Your task to perform on an android device: Open privacy settings Image 0: 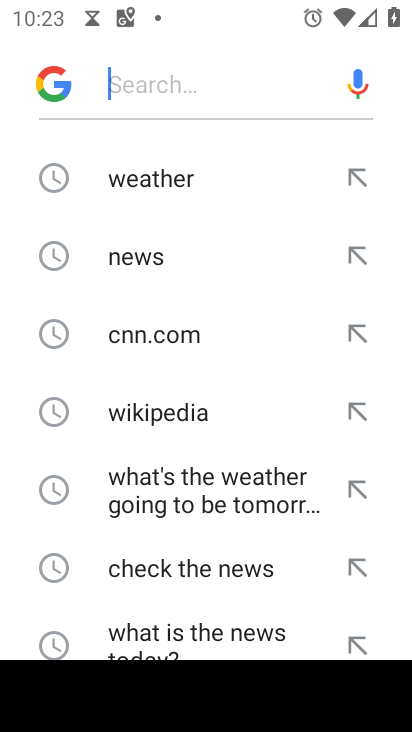
Step 0: press back button
Your task to perform on an android device: Open privacy settings Image 1: 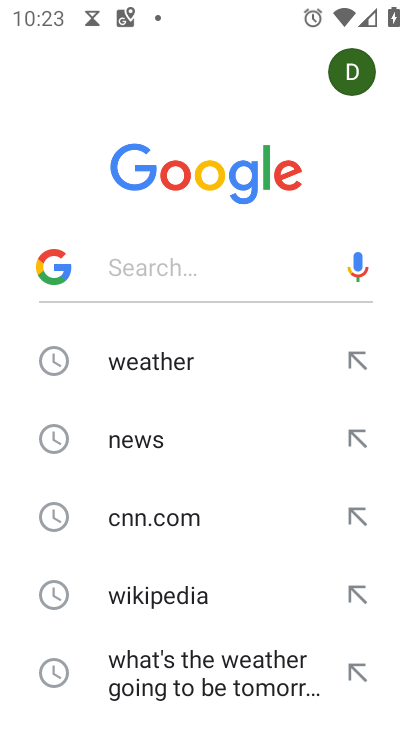
Step 1: press home button
Your task to perform on an android device: Open privacy settings Image 2: 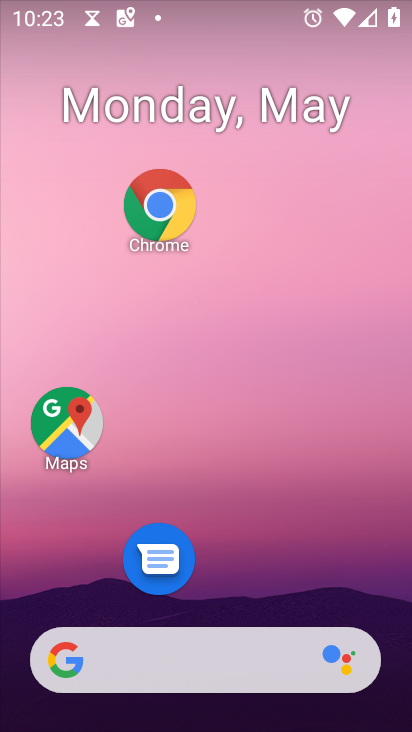
Step 2: drag from (253, 583) to (189, 167)
Your task to perform on an android device: Open privacy settings Image 3: 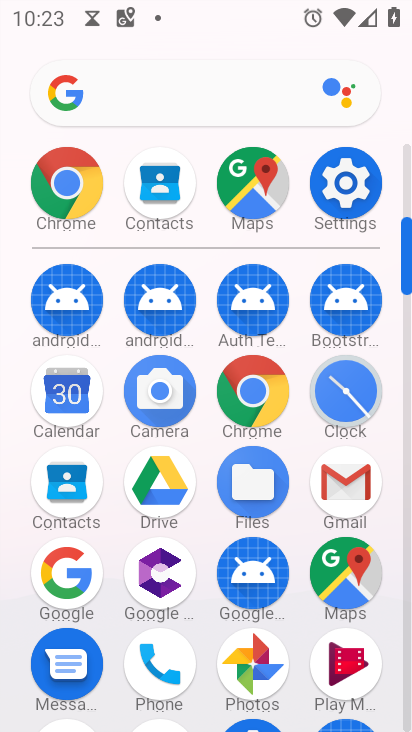
Step 3: click (357, 196)
Your task to perform on an android device: Open privacy settings Image 4: 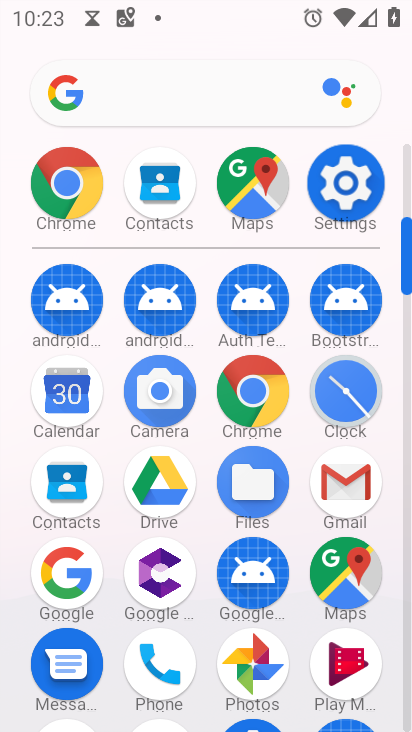
Step 4: click (355, 187)
Your task to perform on an android device: Open privacy settings Image 5: 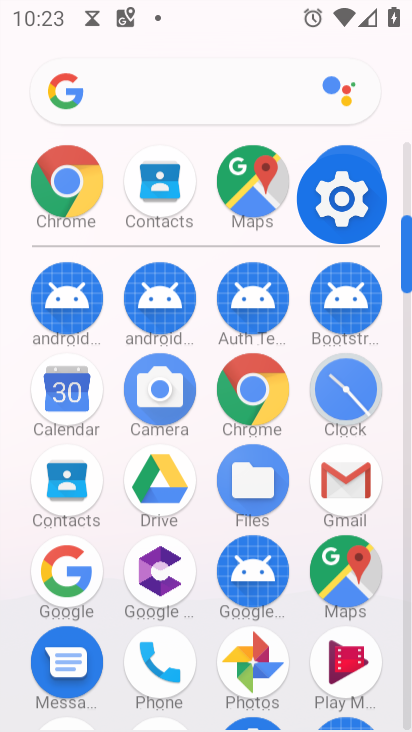
Step 5: click (355, 187)
Your task to perform on an android device: Open privacy settings Image 6: 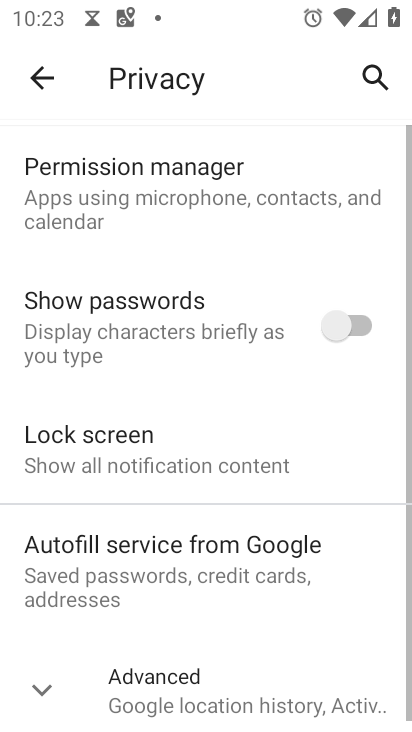
Step 6: drag from (164, 262) to (220, 551)
Your task to perform on an android device: Open privacy settings Image 7: 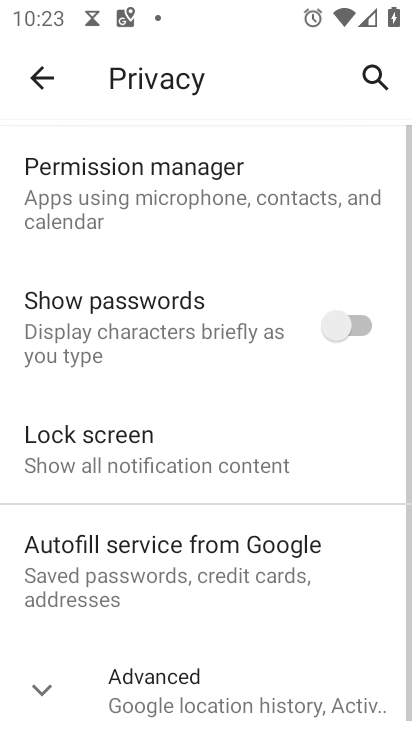
Step 7: click (38, 86)
Your task to perform on an android device: Open privacy settings Image 8: 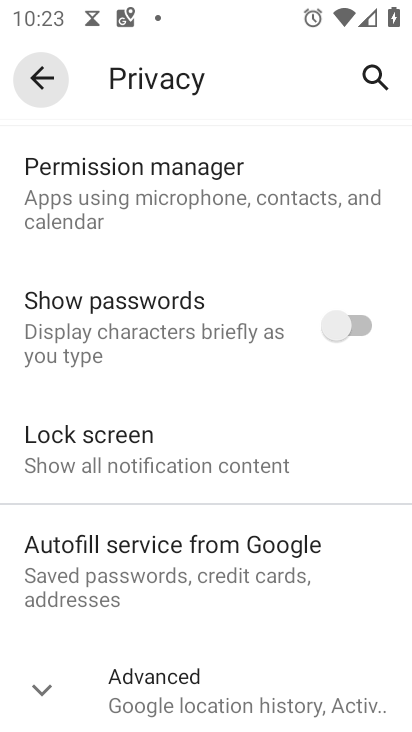
Step 8: click (39, 85)
Your task to perform on an android device: Open privacy settings Image 9: 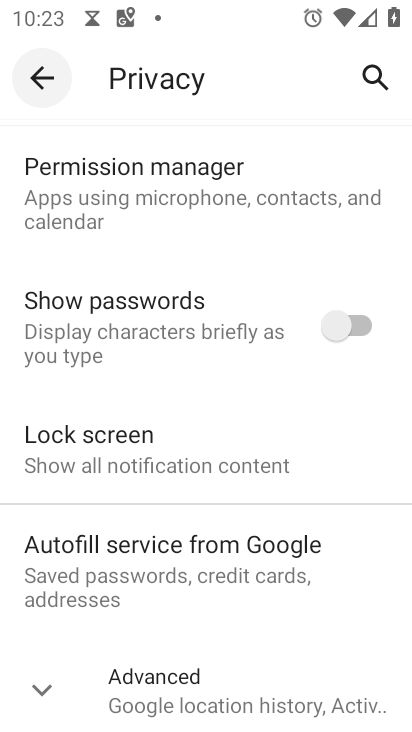
Step 9: click (39, 85)
Your task to perform on an android device: Open privacy settings Image 10: 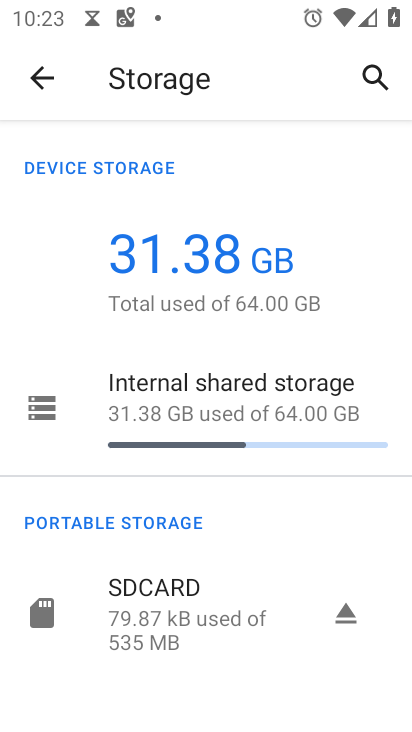
Step 10: drag from (179, 197) to (236, 579)
Your task to perform on an android device: Open privacy settings Image 11: 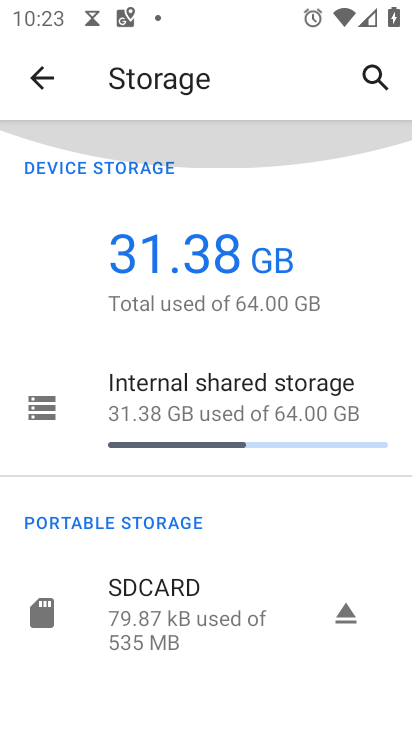
Step 11: drag from (197, 272) to (211, 541)
Your task to perform on an android device: Open privacy settings Image 12: 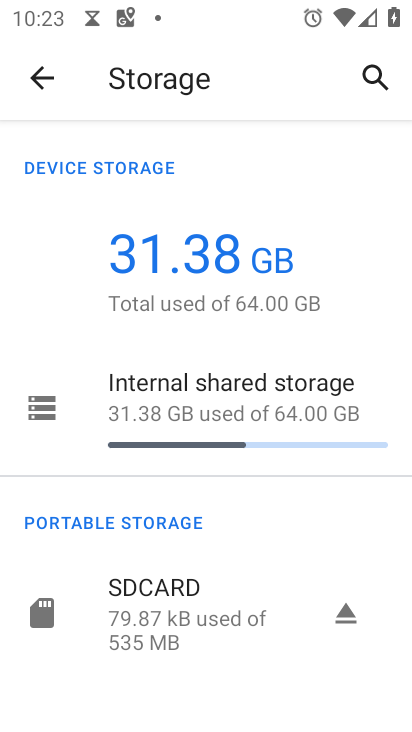
Step 12: click (38, 77)
Your task to perform on an android device: Open privacy settings Image 13: 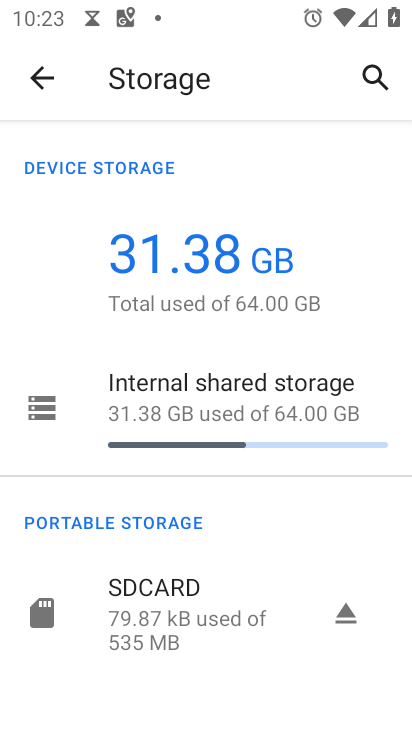
Step 13: click (36, 78)
Your task to perform on an android device: Open privacy settings Image 14: 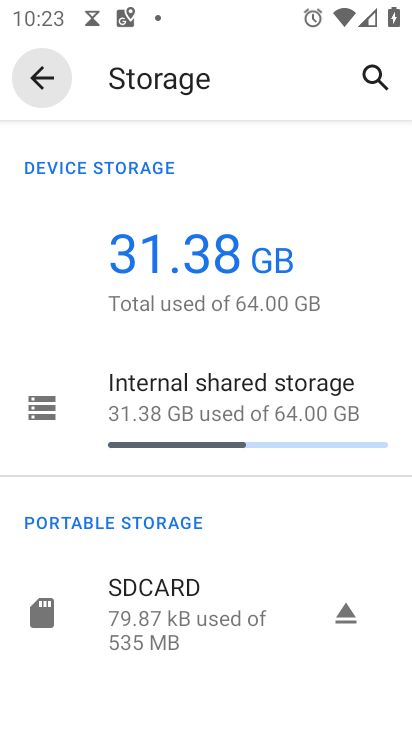
Step 14: click (36, 78)
Your task to perform on an android device: Open privacy settings Image 15: 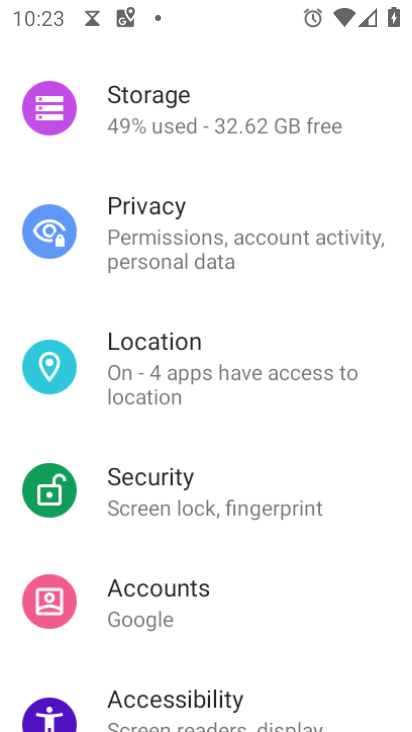
Step 15: click (38, 80)
Your task to perform on an android device: Open privacy settings Image 16: 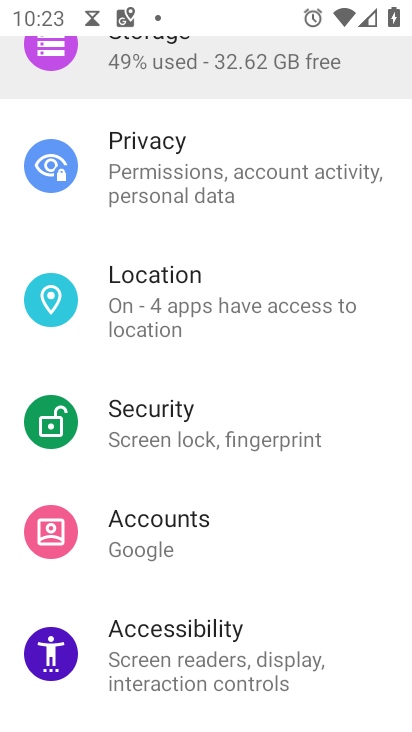
Step 16: click (39, 81)
Your task to perform on an android device: Open privacy settings Image 17: 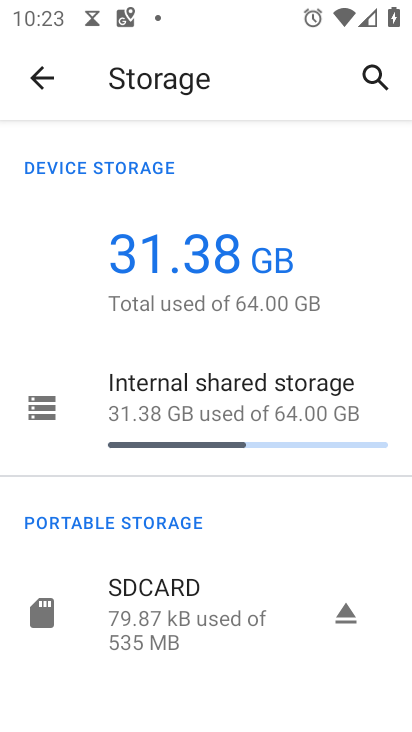
Step 17: click (42, 84)
Your task to perform on an android device: Open privacy settings Image 18: 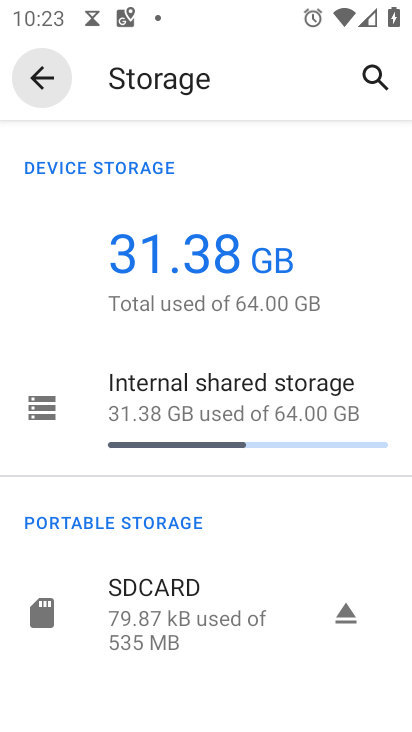
Step 18: click (44, 86)
Your task to perform on an android device: Open privacy settings Image 19: 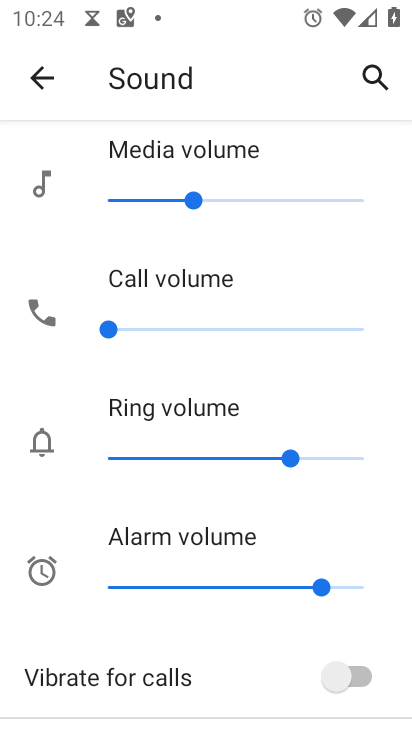
Step 19: click (35, 77)
Your task to perform on an android device: Open privacy settings Image 20: 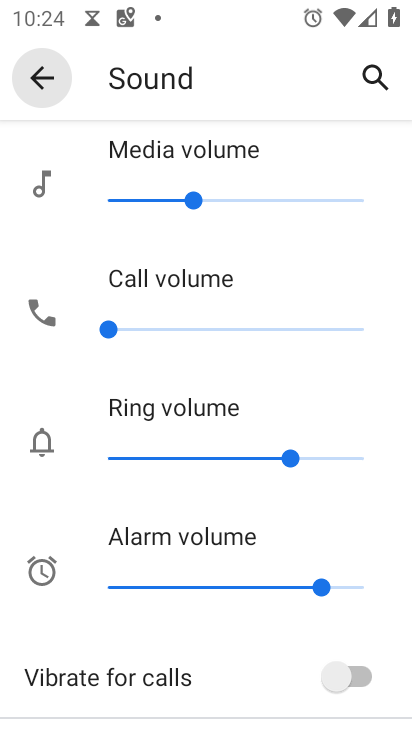
Step 20: click (35, 77)
Your task to perform on an android device: Open privacy settings Image 21: 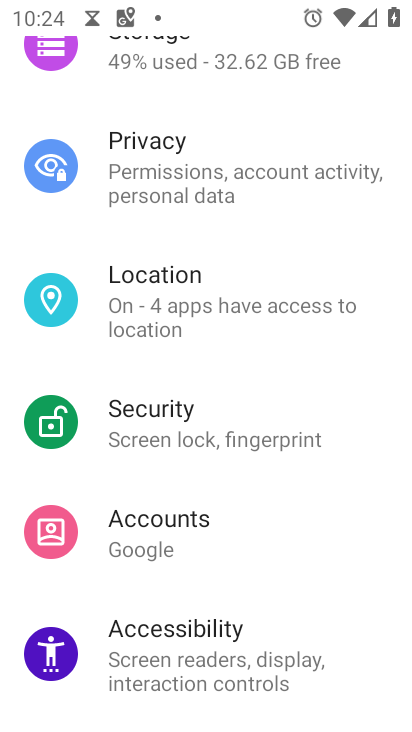
Step 21: click (37, 76)
Your task to perform on an android device: Open privacy settings Image 22: 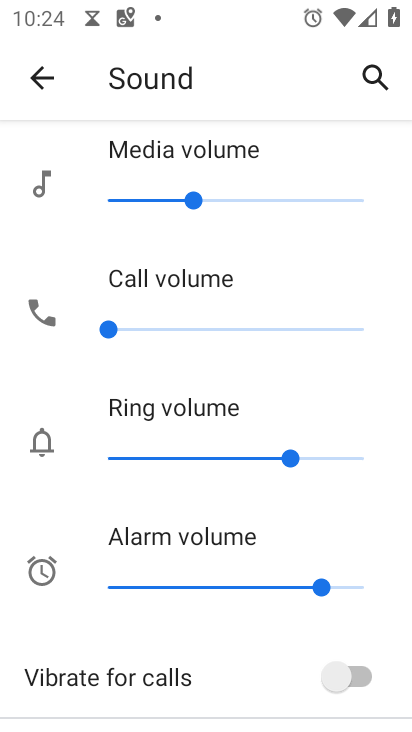
Step 22: click (37, 72)
Your task to perform on an android device: Open privacy settings Image 23: 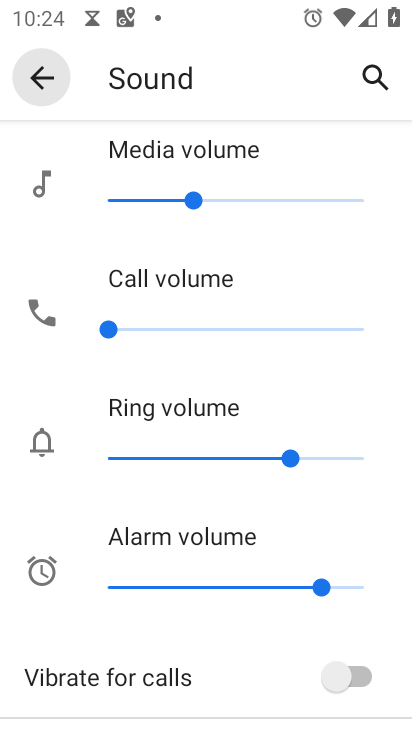
Step 23: click (44, 72)
Your task to perform on an android device: Open privacy settings Image 24: 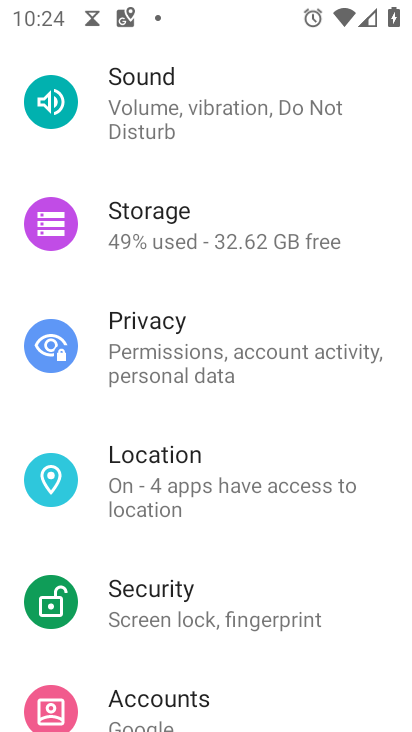
Step 24: drag from (149, 208) to (216, 442)
Your task to perform on an android device: Open privacy settings Image 25: 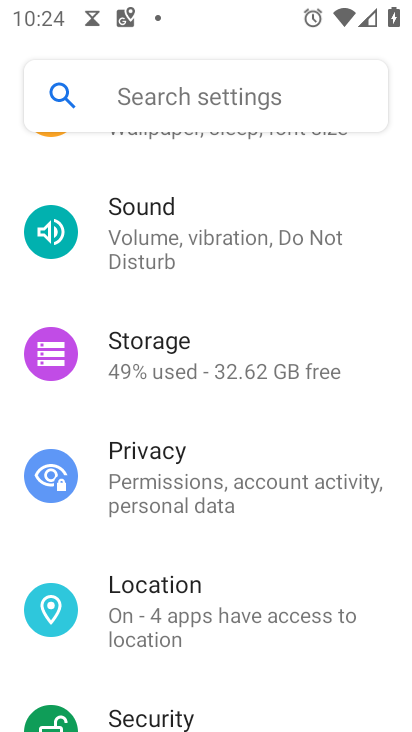
Step 25: drag from (213, 217) to (222, 476)
Your task to perform on an android device: Open privacy settings Image 26: 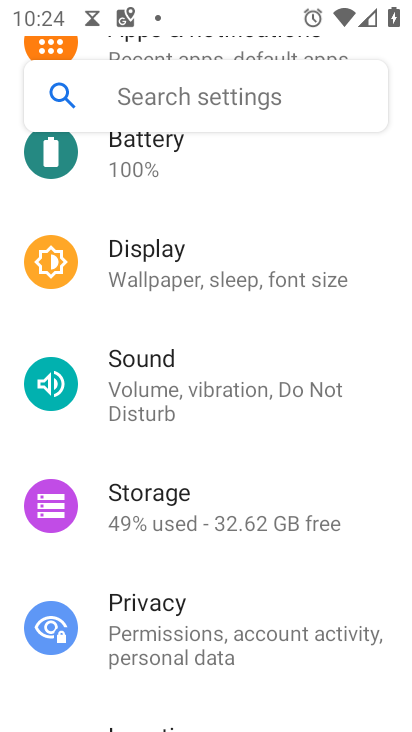
Step 26: drag from (201, 193) to (195, 625)
Your task to perform on an android device: Open privacy settings Image 27: 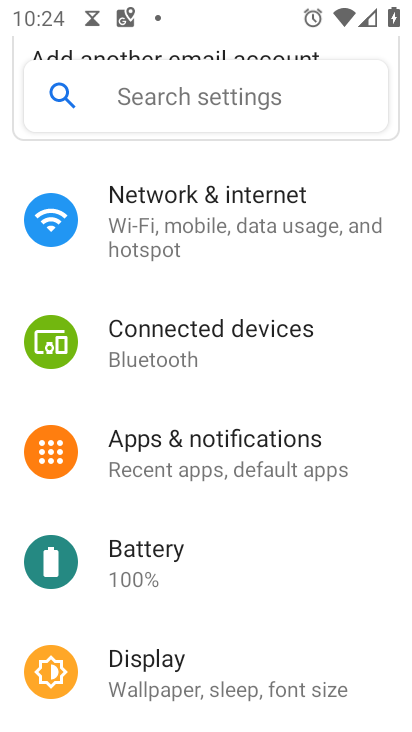
Step 27: drag from (161, 298) to (160, 717)
Your task to perform on an android device: Open privacy settings Image 28: 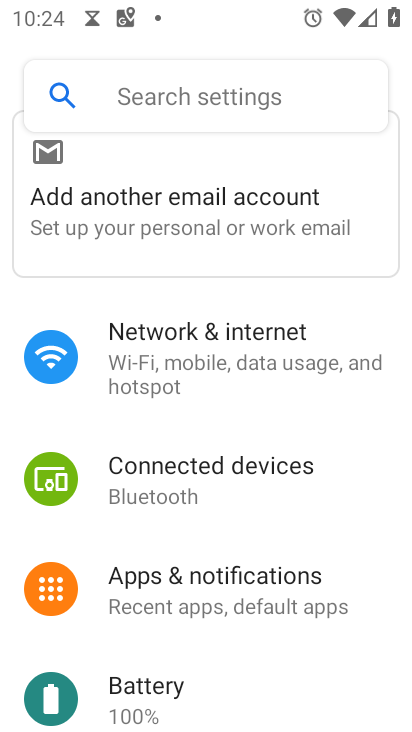
Step 28: drag from (97, 333) to (164, 583)
Your task to perform on an android device: Open privacy settings Image 29: 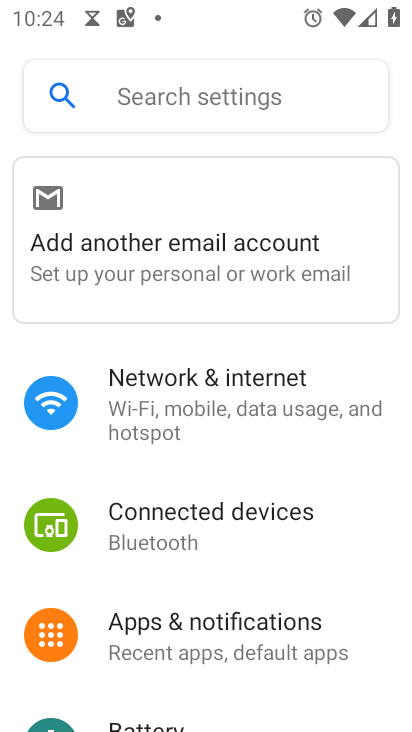
Step 29: drag from (140, 307) to (160, 434)
Your task to perform on an android device: Open privacy settings Image 30: 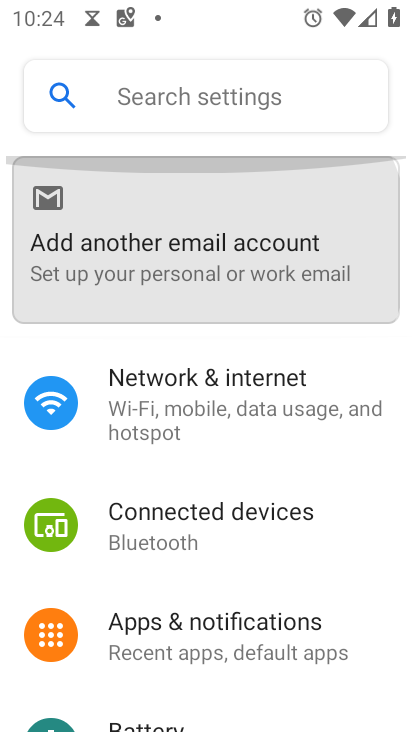
Step 30: drag from (118, 291) to (151, 414)
Your task to perform on an android device: Open privacy settings Image 31: 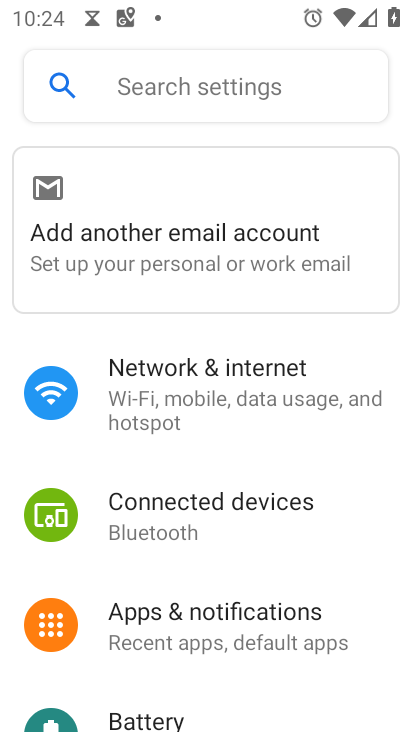
Step 31: drag from (189, 594) to (219, 303)
Your task to perform on an android device: Open privacy settings Image 32: 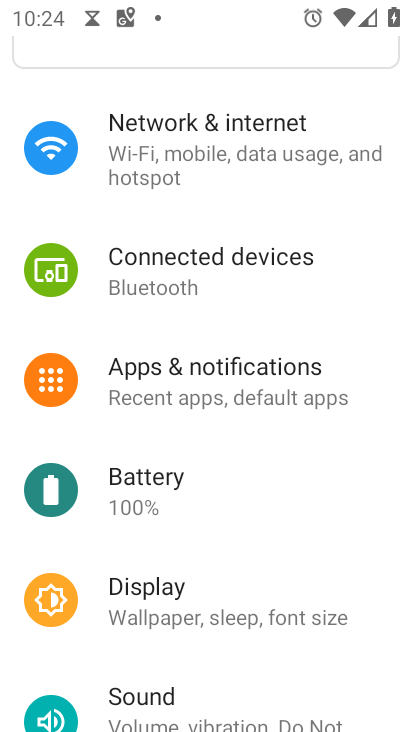
Step 32: drag from (268, 538) to (290, 298)
Your task to perform on an android device: Open privacy settings Image 33: 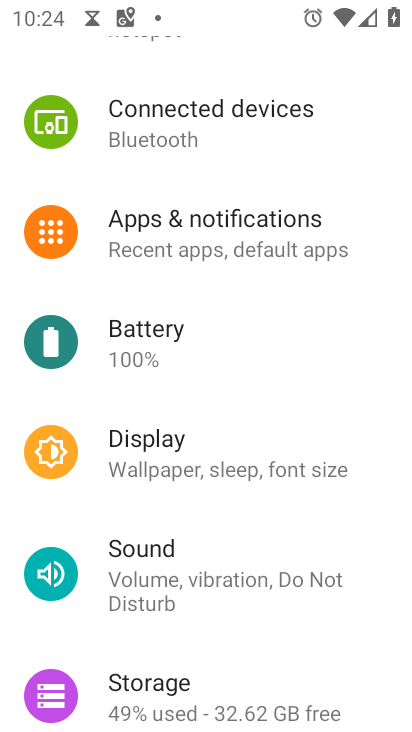
Step 33: drag from (188, 559) to (188, 144)
Your task to perform on an android device: Open privacy settings Image 34: 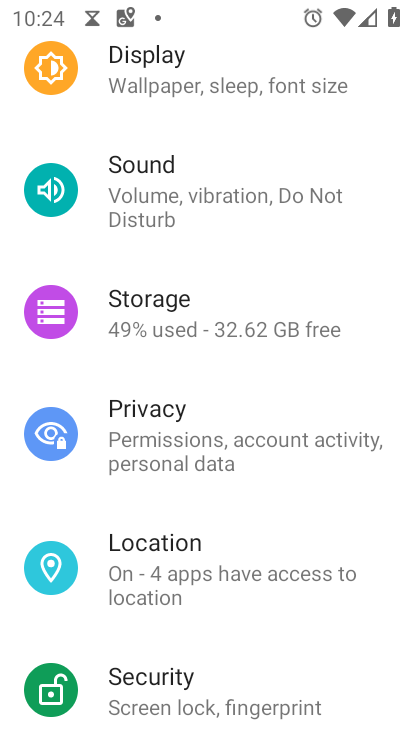
Step 34: drag from (216, 428) to (209, 144)
Your task to perform on an android device: Open privacy settings Image 35: 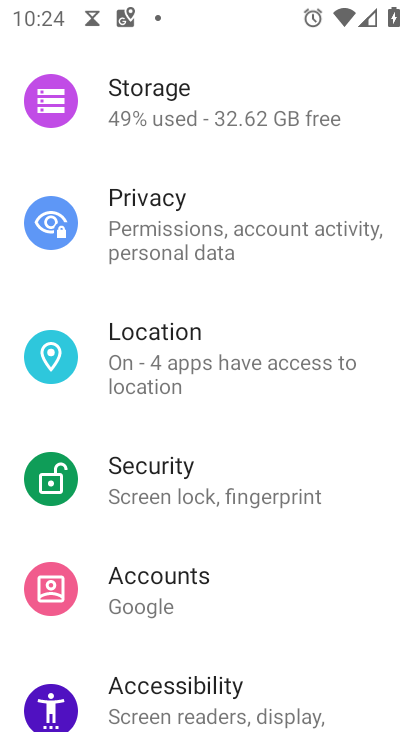
Step 35: click (152, 240)
Your task to perform on an android device: Open privacy settings Image 36: 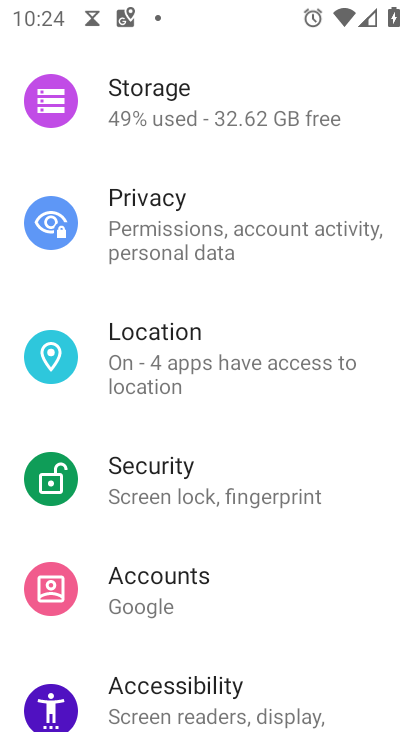
Step 36: click (160, 240)
Your task to perform on an android device: Open privacy settings Image 37: 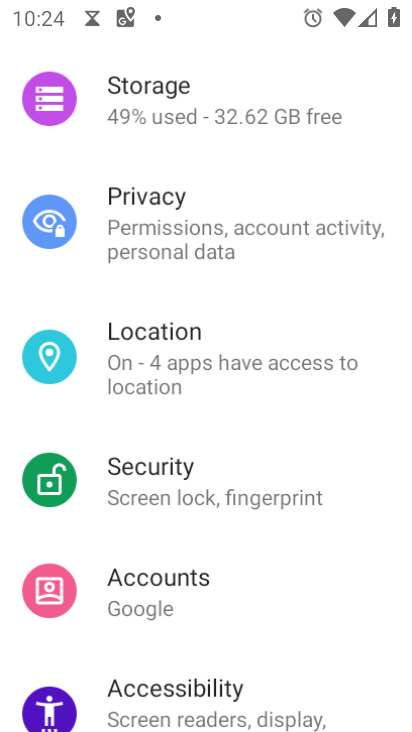
Step 37: click (163, 242)
Your task to perform on an android device: Open privacy settings Image 38: 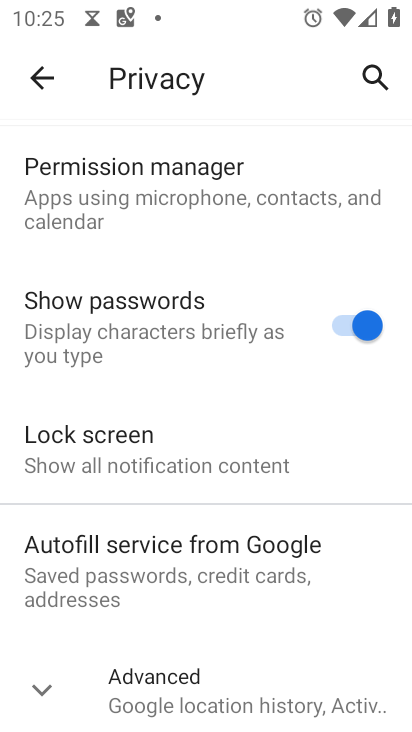
Step 38: click (50, 68)
Your task to perform on an android device: Open privacy settings Image 39: 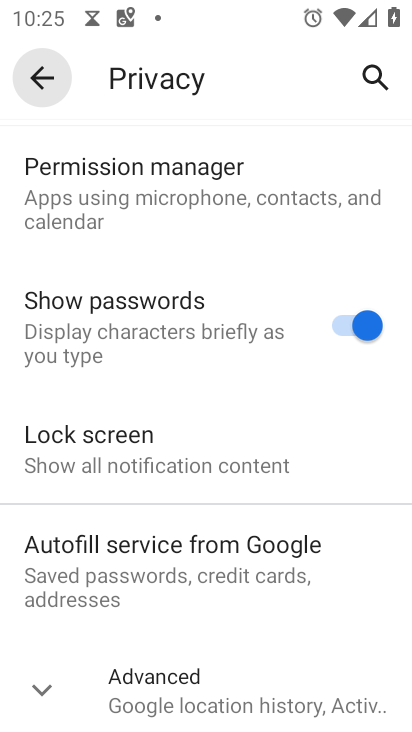
Step 39: click (50, 68)
Your task to perform on an android device: Open privacy settings Image 40: 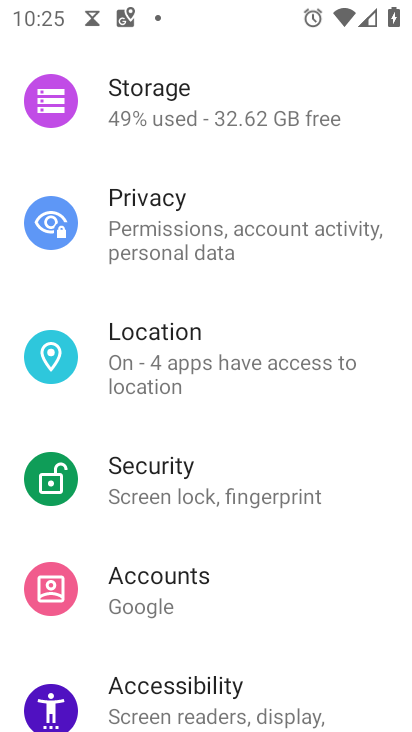
Step 40: task complete